Your task to perform on an android device: turn off airplane mode Image 0: 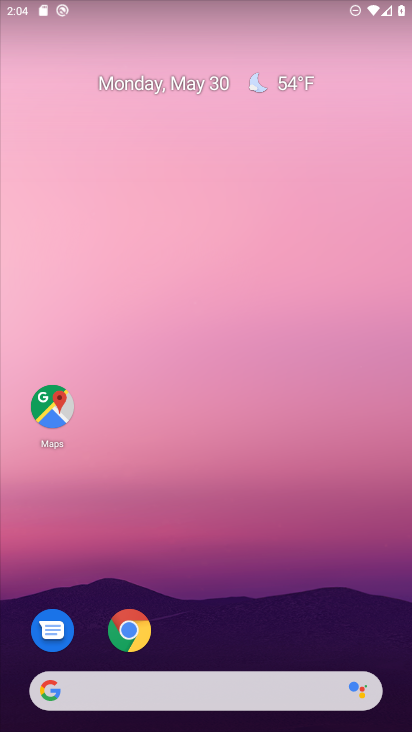
Step 0: drag from (184, 683) to (170, 35)
Your task to perform on an android device: turn off airplane mode Image 1: 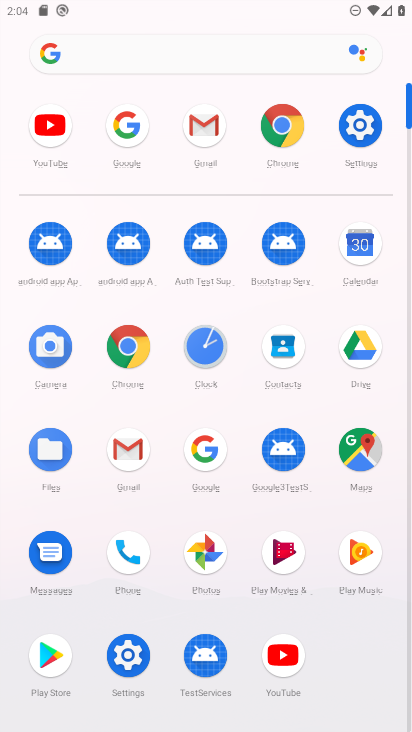
Step 1: click (366, 146)
Your task to perform on an android device: turn off airplane mode Image 2: 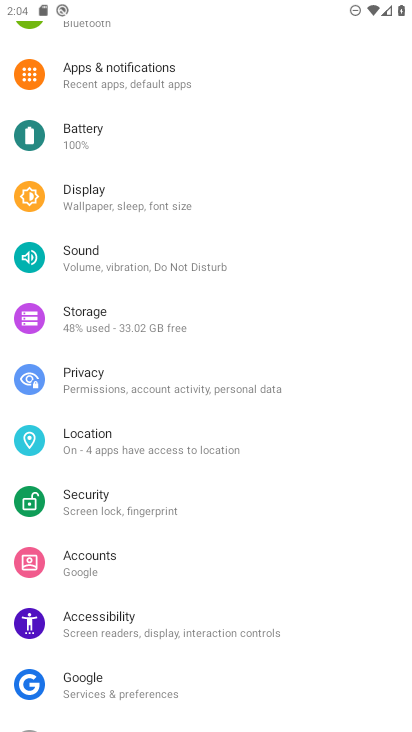
Step 2: drag from (194, 213) to (285, 706)
Your task to perform on an android device: turn off airplane mode Image 3: 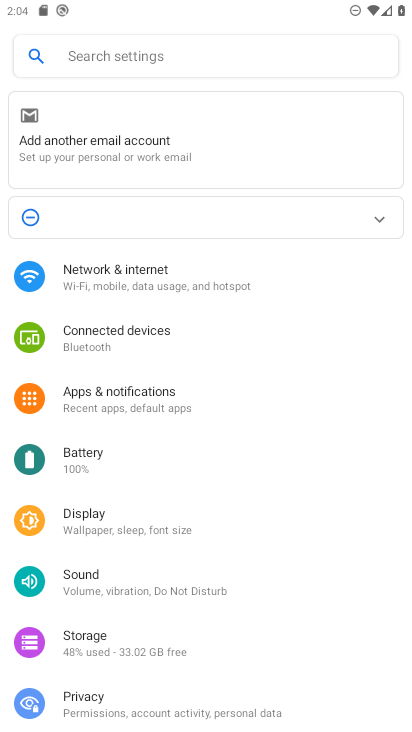
Step 3: click (195, 286)
Your task to perform on an android device: turn off airplane mode Image 4: 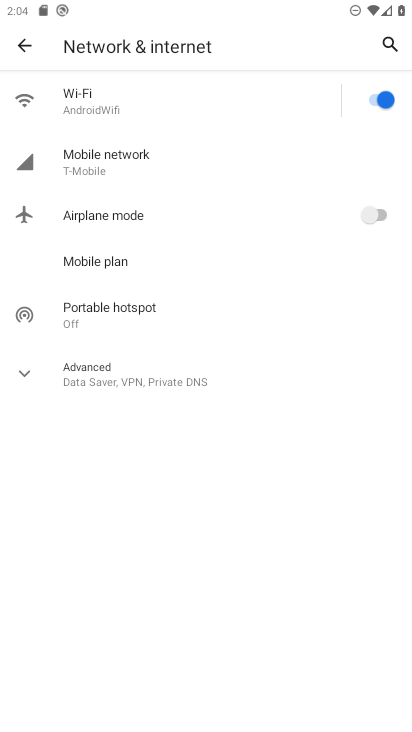
Step 4: task complete